Your task to perform on an android device: Open calendar and show me the fourth week of next month Image 0: 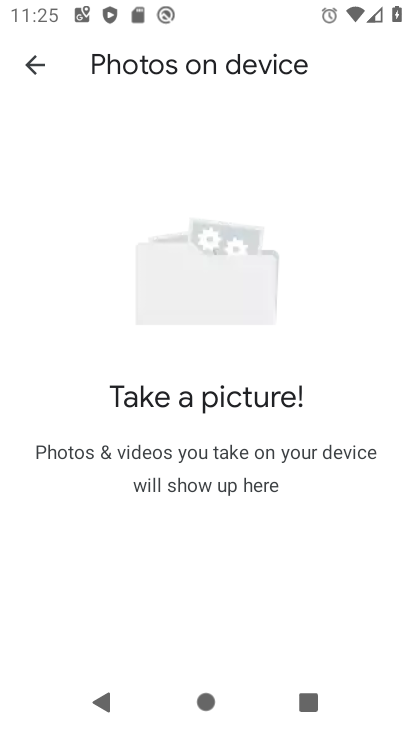
Step 0: press home button
Your task to perform on an android device: Open calendar and show me the fourth week of next month Image 1: 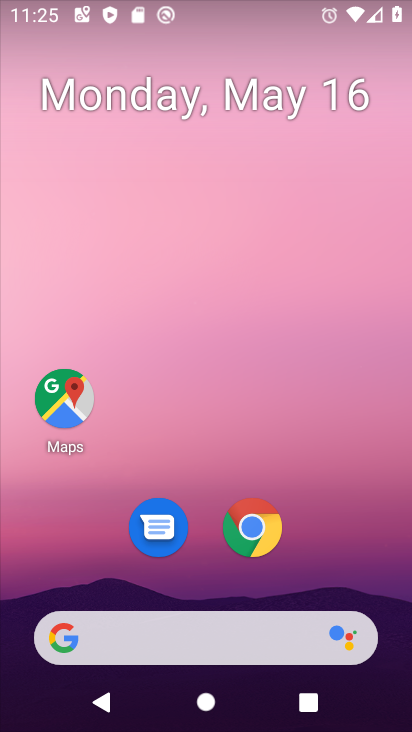
Step 1: drag from (343, 585) to (343, 21)
Your task to perform on an android device: Open calendar and show me the fourth week of next month Image 2: 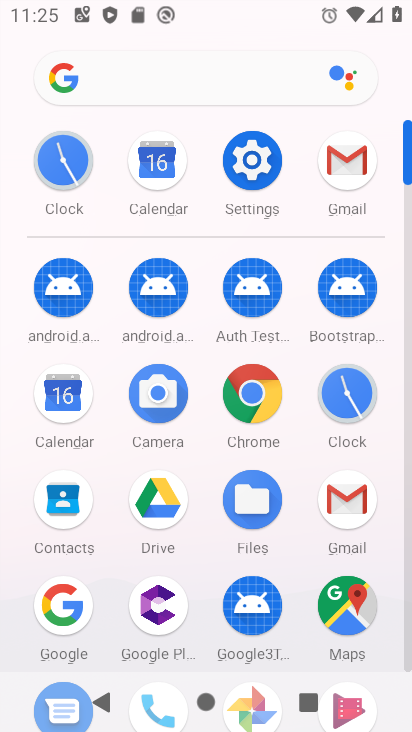
Step 2: click (154, 160)
Your task to perform on an android device: Open calendar and show me the fourth week of next month Image 3: 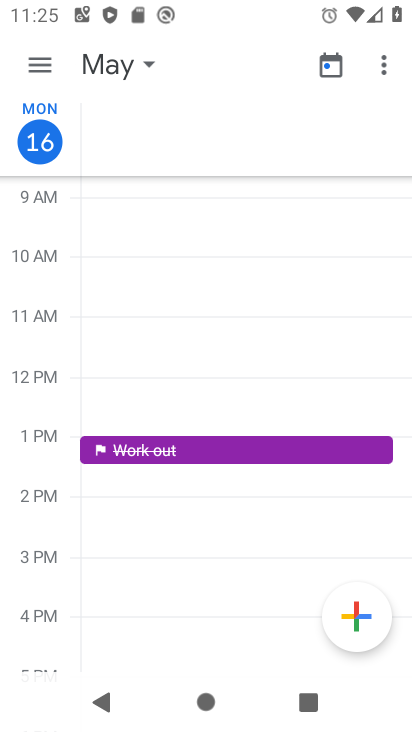
Step 3: click (150, 64)
Your task to perform on an android device: Open calendar and show me the fourth week of next month Image 4: 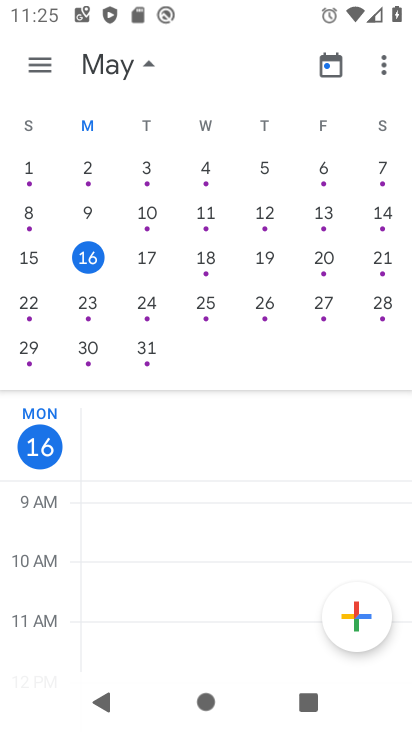
Step 4: drag from (253, 242) to (20, 232)
Your task to perform on an android device: Open calendar and show me the fourth week of next month Image 5: 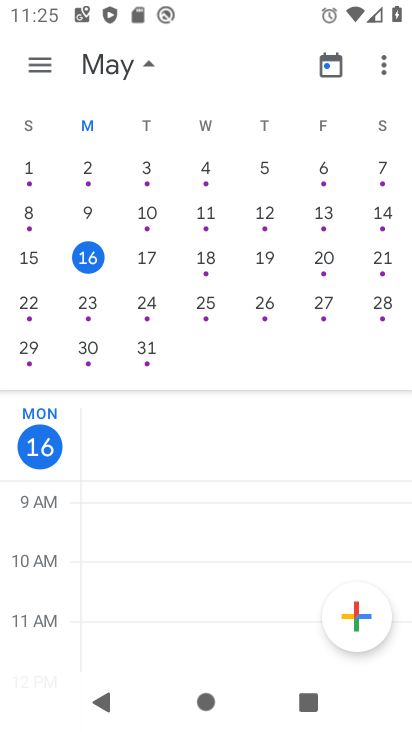
Step 5: drag from (262, 266) to (0, 42)
Your task to perform on an android device: Open calendar and show me the fourth week of next month Image 6: 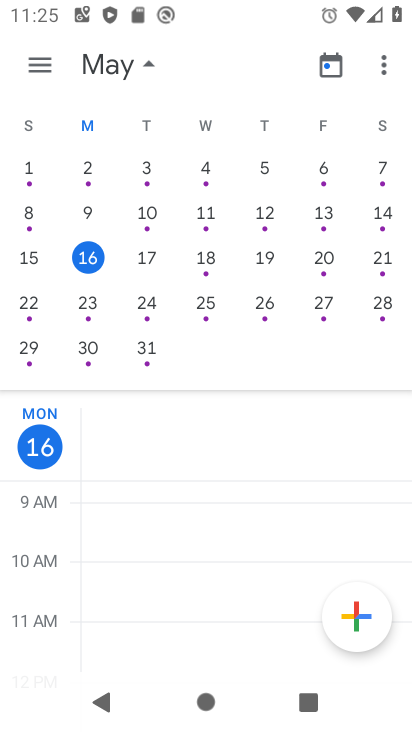
Step 6: drag from (297, 163) to (11, 114)
Your task to perform on an android device: Open calendar and show me the fourth week of next month Image 7: 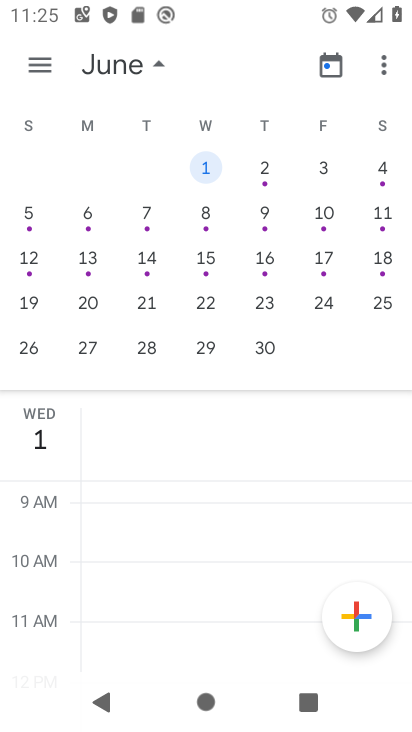
Step 7: click (46, 69)
Your task to perform on an android device: Open calendar and show me the fourth week of next month Image 8: 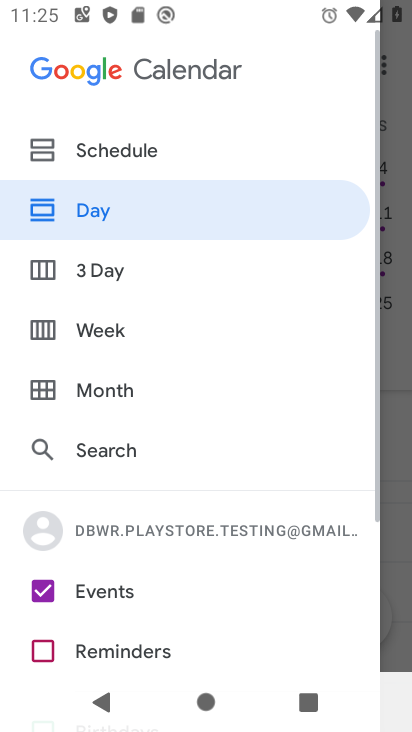
Step 8: click (63, 346)
Your task to perform on an android device: Open calendar and show me the fourth week of next month Image 9: 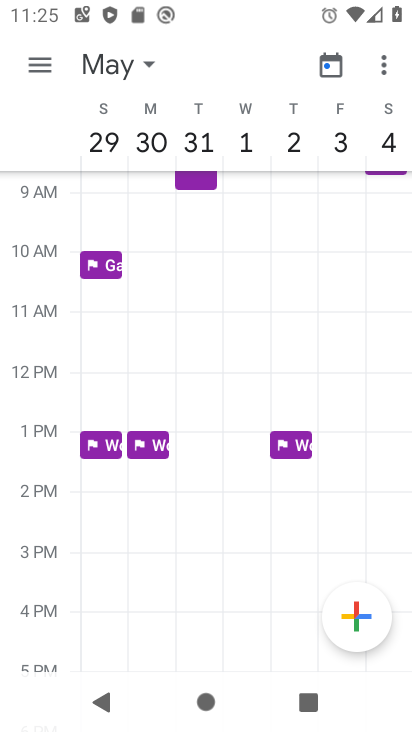
Step 9: task complete